Your task to perform on an android device: toggle show notifications on the lock screen Image 0: 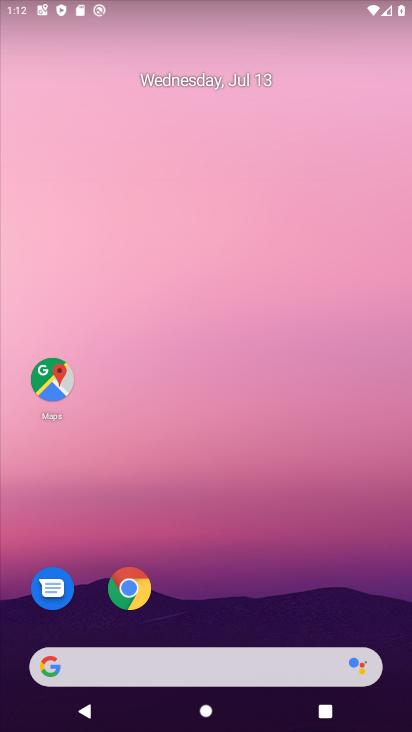
Step 0: drag from (169, 648) to (126, 240)
Your task to perform on an android device: toggle show notifications on the lock screen Image 1: 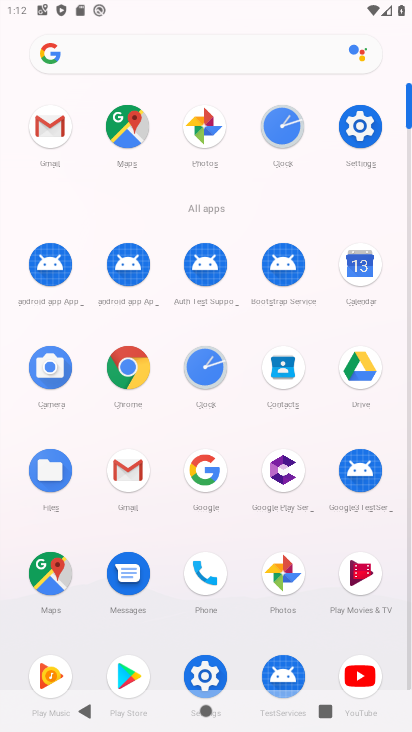
Step 1: click (357, 139)
Your task to perform on an android device: toggle show notifications on the lock screen Image 2: 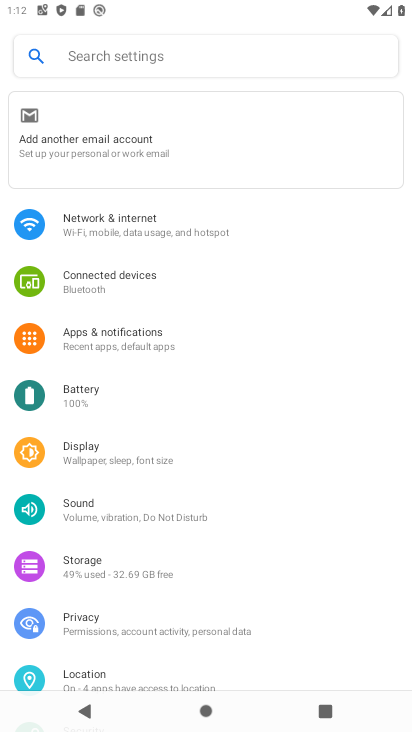
Step 2: click (80, 673)
Your task to perform on an android device: toggle show notifications on the lock screen Image 3: 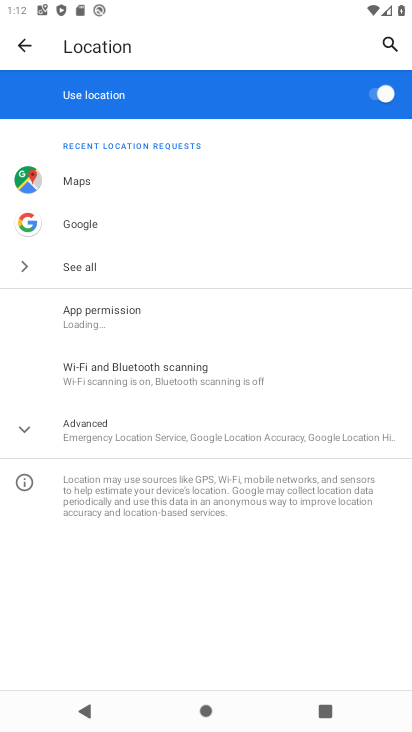
Step 3: press back button
Your task to perform on an android device: toggle show notifications on the lock screen Image 4: 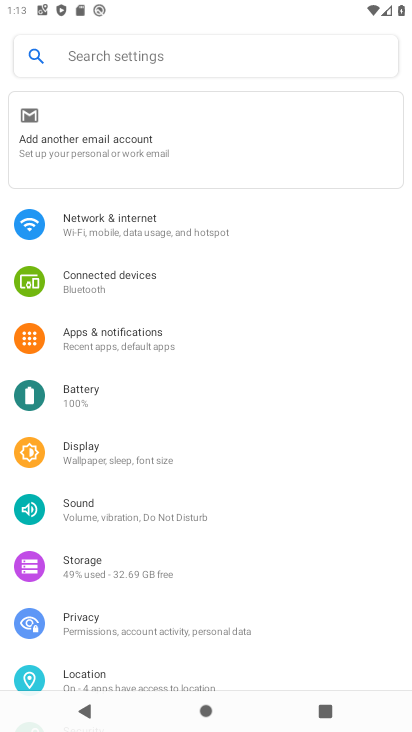
Step 4: click (68, 624)
Your task to perform on an android device: toggle show notifications on the lock screen Image 5: 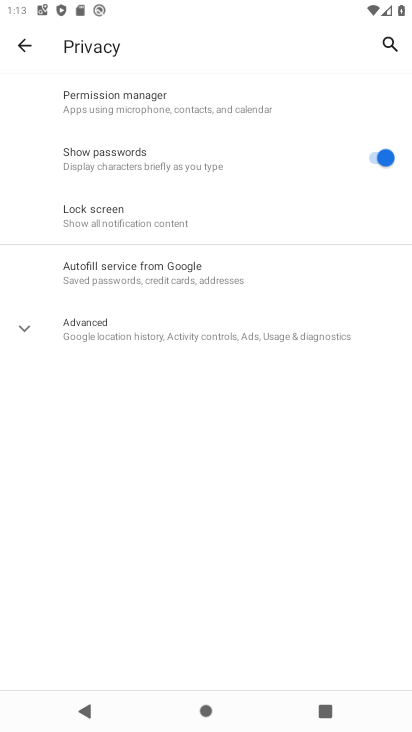
Step 5: click (105, 218)
Your task to perform on an android device: toggle show notifications on the lock screen Image 6: 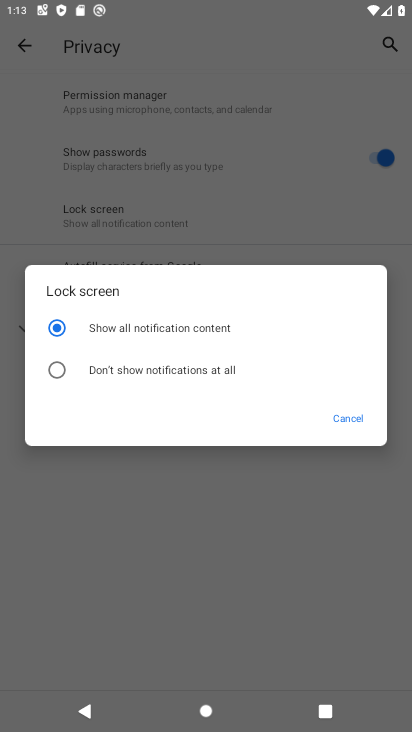
Step 6: click (104, 366)
Your task to perform on an android device: toggle show notifications on the lock screen Image 7: 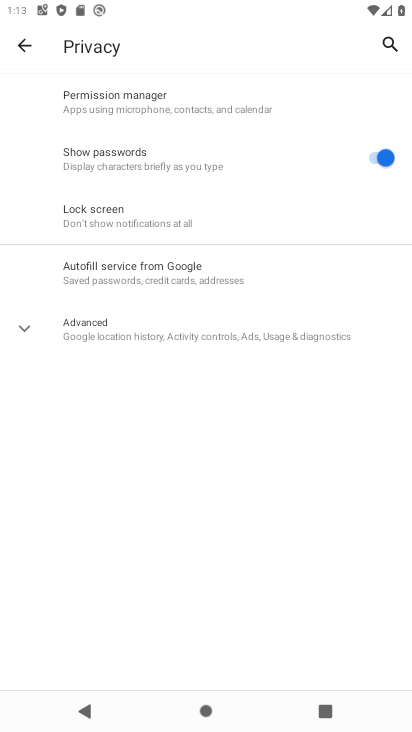
Step 7: task complete